Your task to perform on an android device: Open privacy settings Image 0: 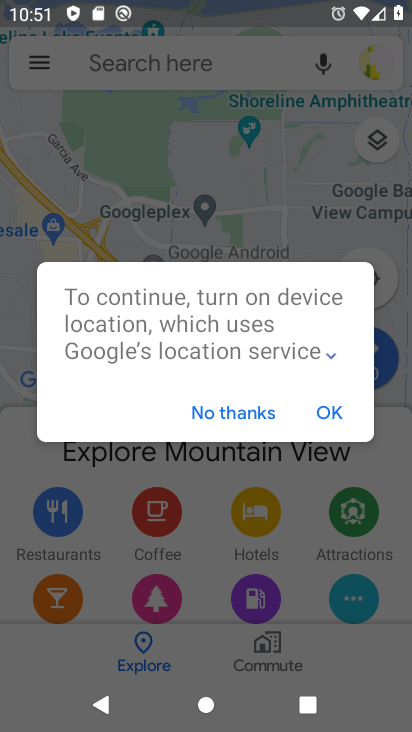
Step 0: press home button
Your task to perform on an android device: Open privacy settings Image 1: 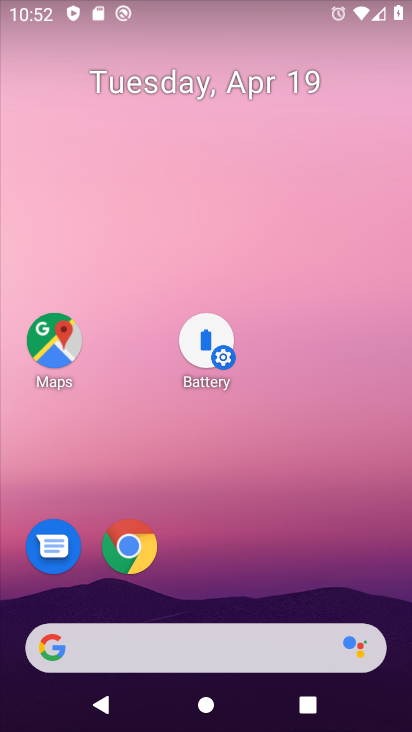
Step 1: drag from (256, 501) to (301, 39)
Your task to perform on an android device: Open privacy settings Image 2: 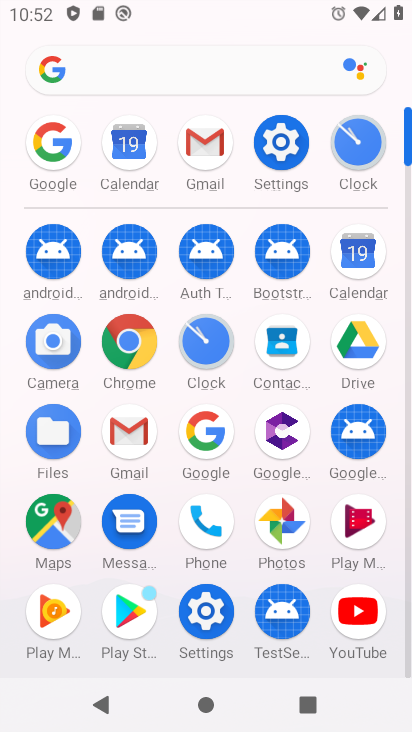
Step 2: click (291, 124)
Your task to perform on an android device: Open privacy settings Image 3: 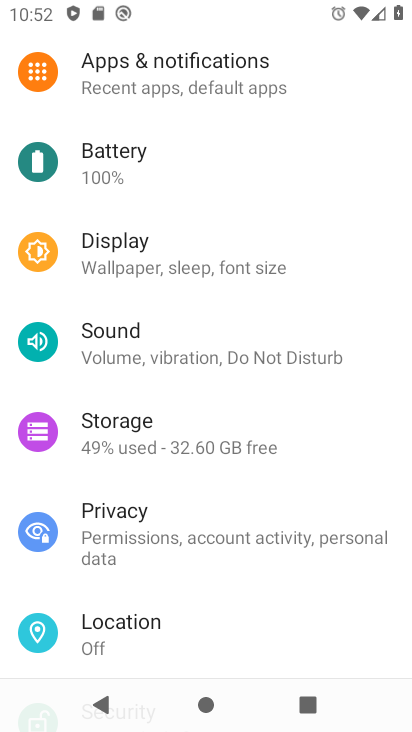
Step 3: click (119, 542)
Your task to perform on an android device: Open privacy settings Image 4: 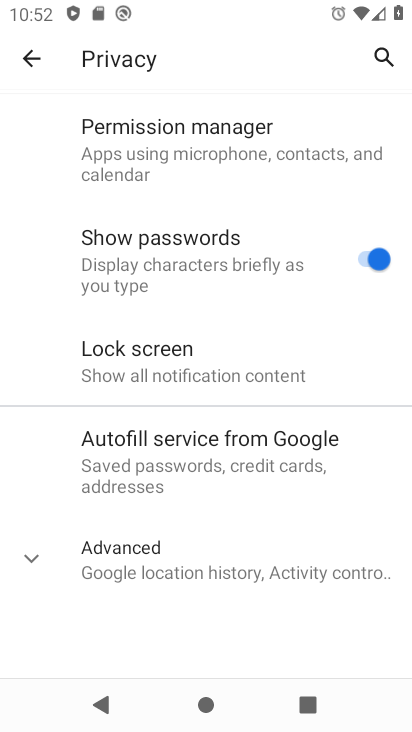
Step 4: task complete